Your task to perform on an android device: Go to accessibility settings Image 0: 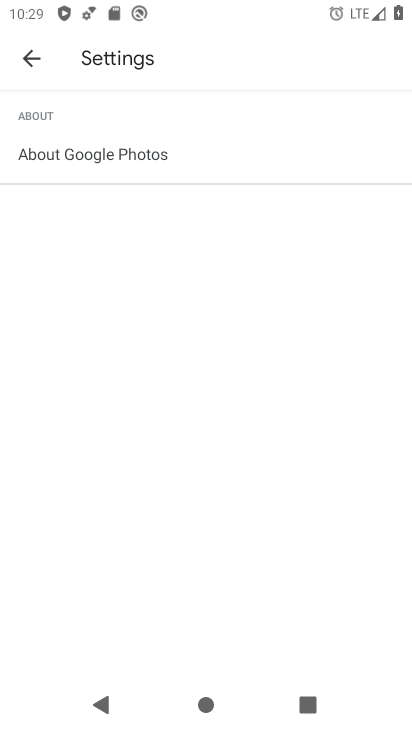
Step 0: press home button
Your task to perform on an android device: Go to accessibility settings Image 1: 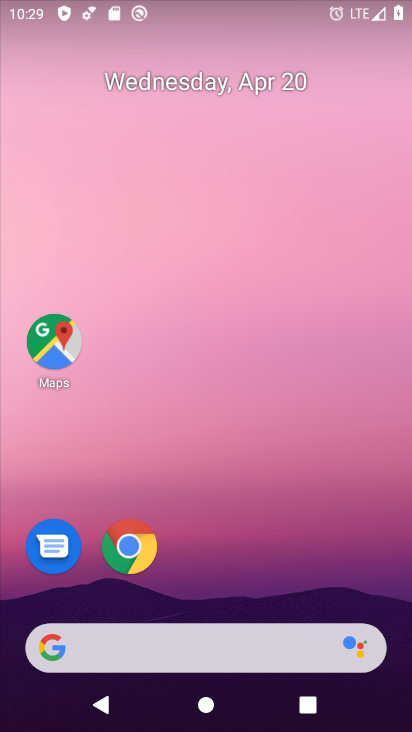
Step 1: drag from (188, 581) to (74, 71)
Your task to perform on an android device: Go to accessibility settings Image 2: 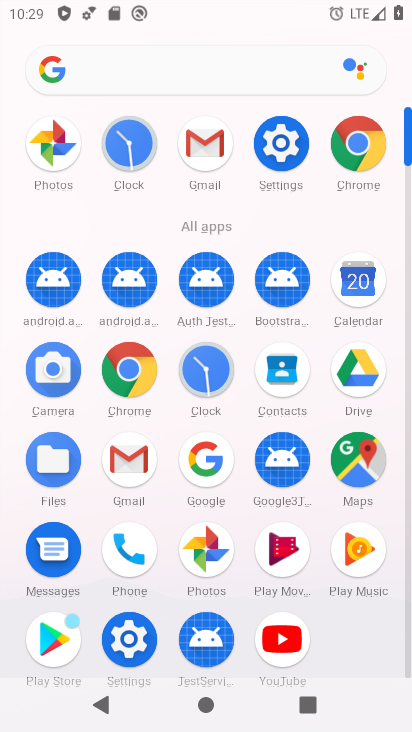
Step 2: click (283, 153)
Your task to perform on an android device: Go to accessibility settings Image 3: 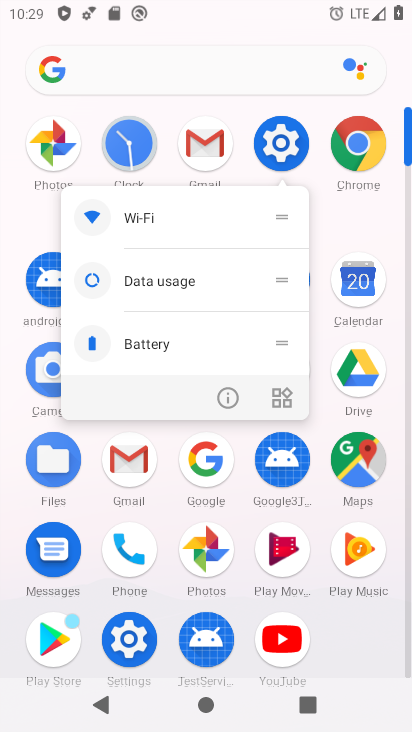
Step 3: click (288, 141)
Your task to perform on an android device: Go to accessibility settings Image 4: 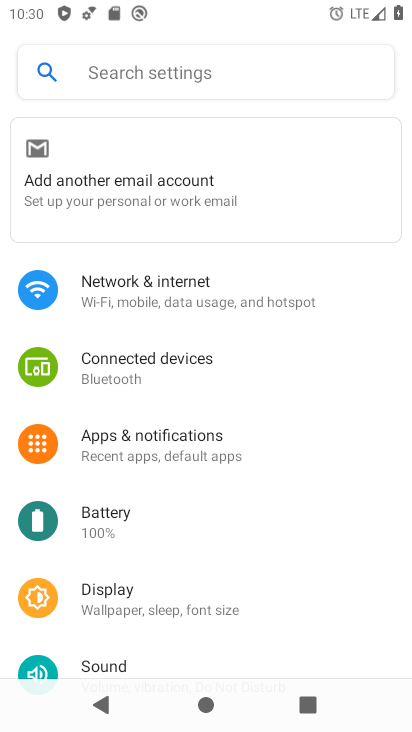
Step 4: drag from (205, 606) to (185, 259)
Your task to perform on an android device: Go to accessibility settings Image 5: 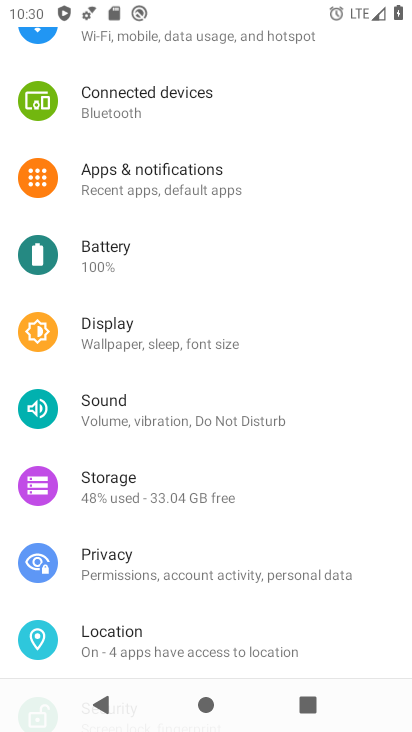
Step 5: drag from (257, 620) to (219, 262)
Your task to perform on an android device: Go to accessibility settings Image 6: 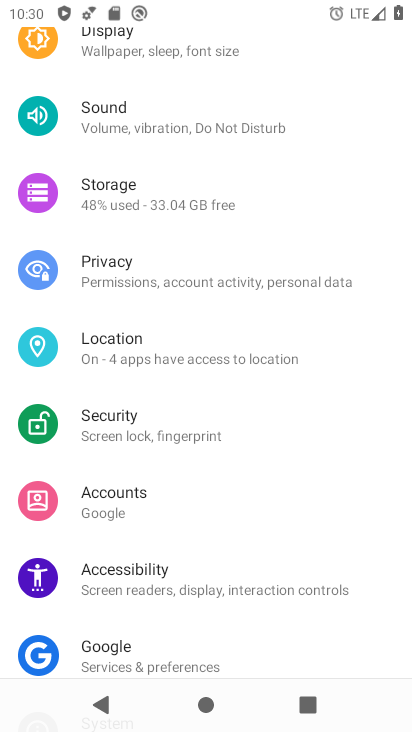
Step 6: drag from (227, 595) to (214, 294)
Your task to perform on an android device: Go to accessibility settings Image 7: 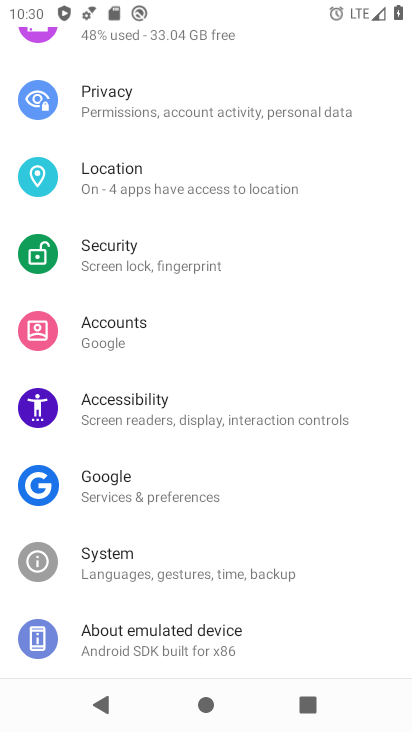
Step 7: click (173, 420)
Your task to perform on an android device: Go to accessibility settings Image 8: 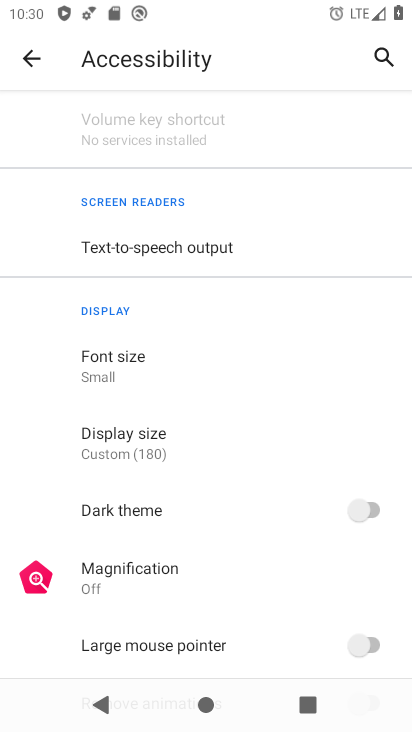
Step 8: task complete